Your task to perform on an android device: see creations saved in the google photos Image 0: 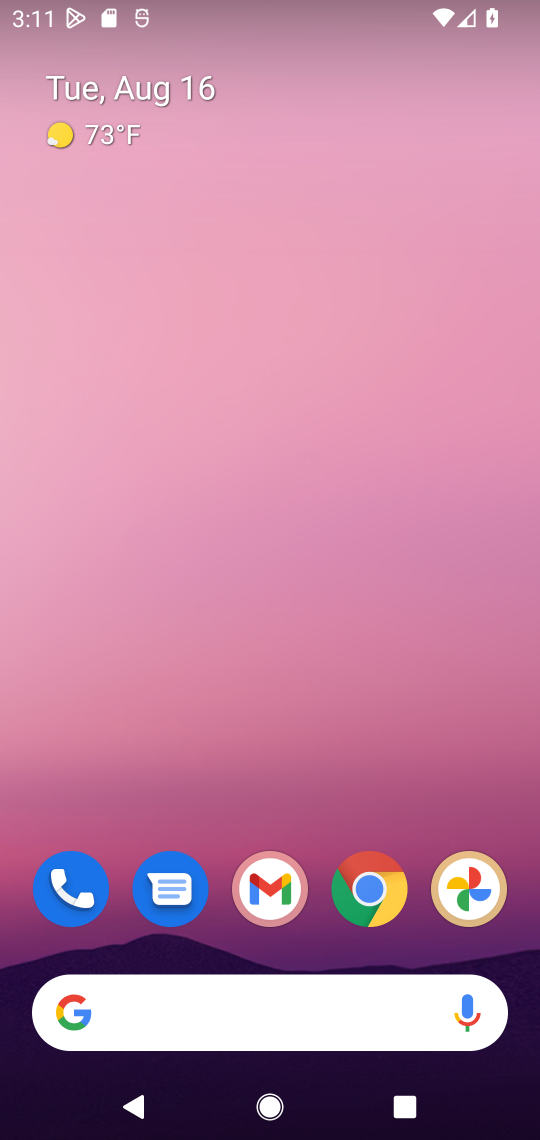
Step 0: click (463, 879)
Your task to perform on an android device: see creations saved in the google photos Image 1: 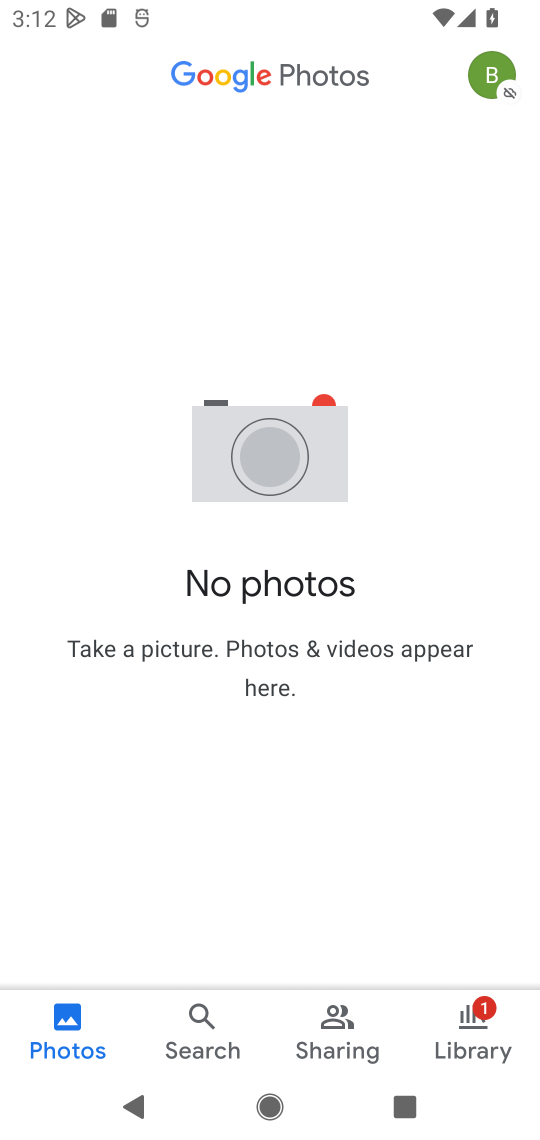
Step 1: press home button
Your task to perform on an android device: see creations saved in the google photos Image 2: 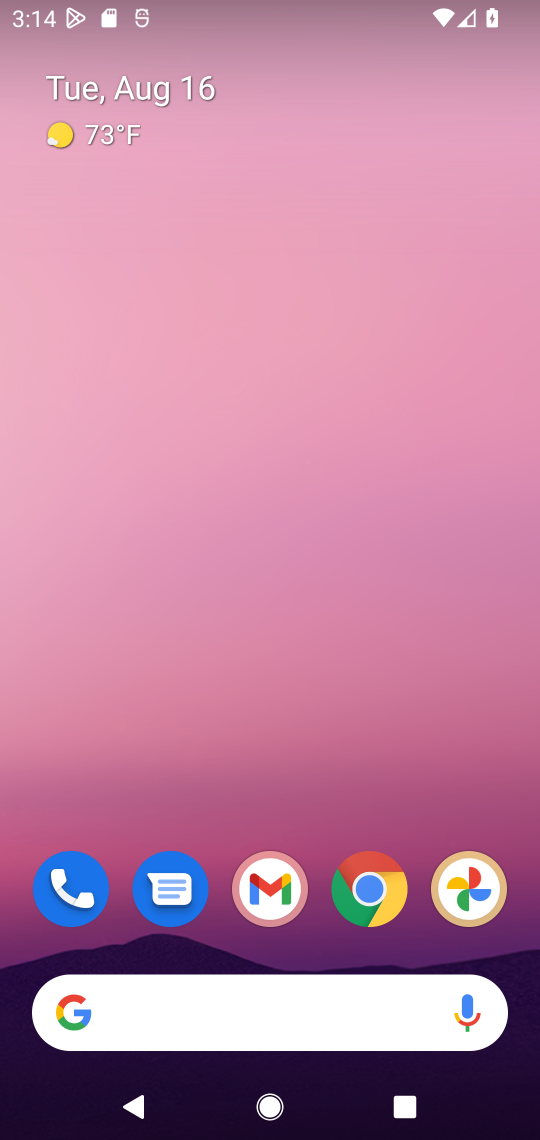
Step 2: click (453, 883)
Your task to perform on an android device: see creations saved in the google photos Image 3: 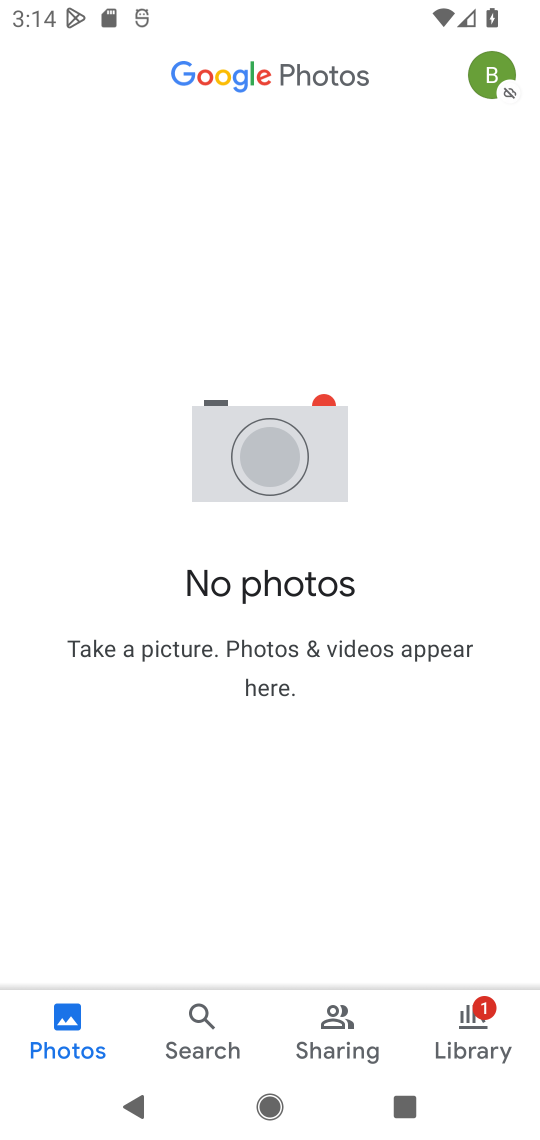
Step 3: task complete